Your task to perform on an android device: turn pop-ups off in chrome Image 0: 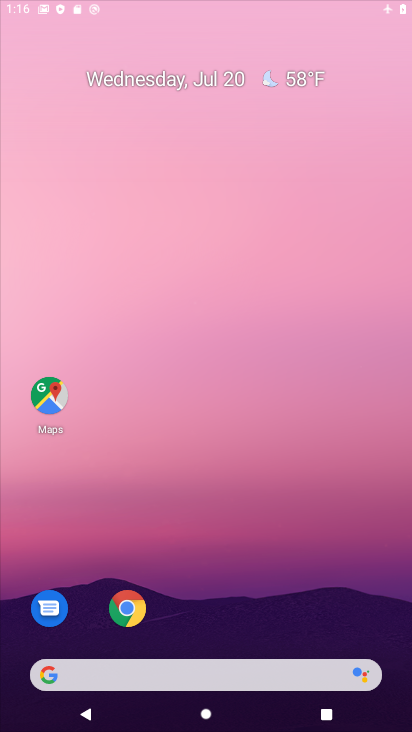
Step 0: drag from (288, 684) to (301, 190)
Your task to perform on an android device: turn pop-ups off in chrome Image 1: 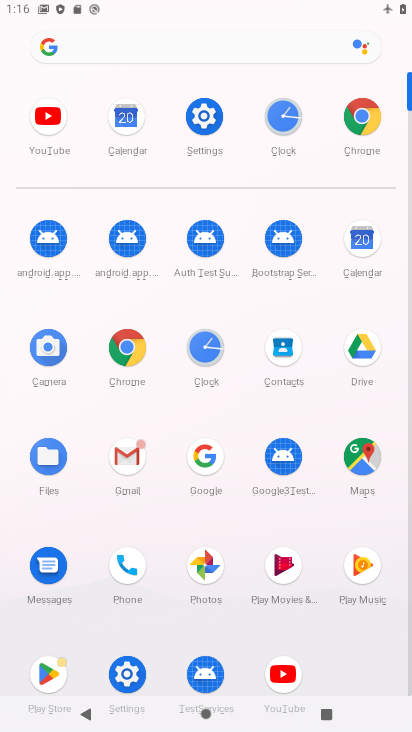
Step 1: click (131, 349)
Your task to perform on an android device: turn pop-ups off in chrome Image 2: 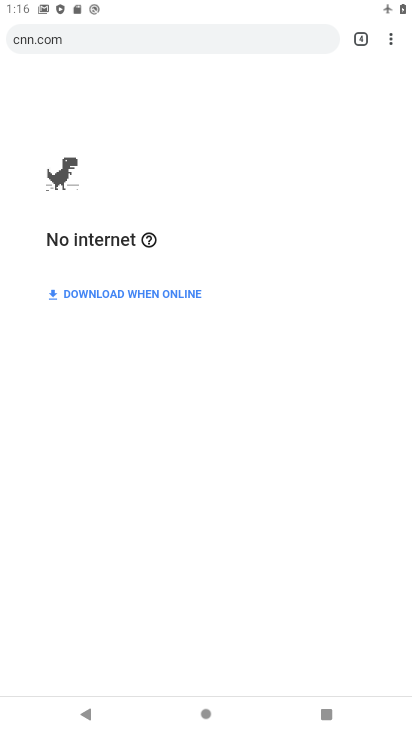
Step 2: click (391, 38)
Your task to perform on an android device: turn pop-ups off in chrome Image 3: 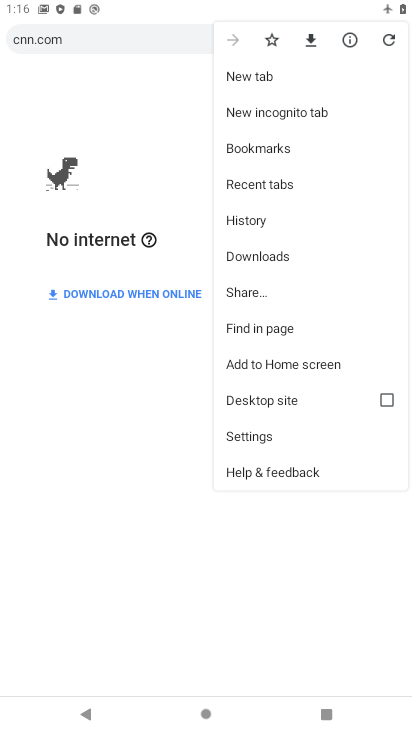
Step 3: click (253, 435)
Your task to perform on an android device: turn pop-ups off in chrome Image 4: 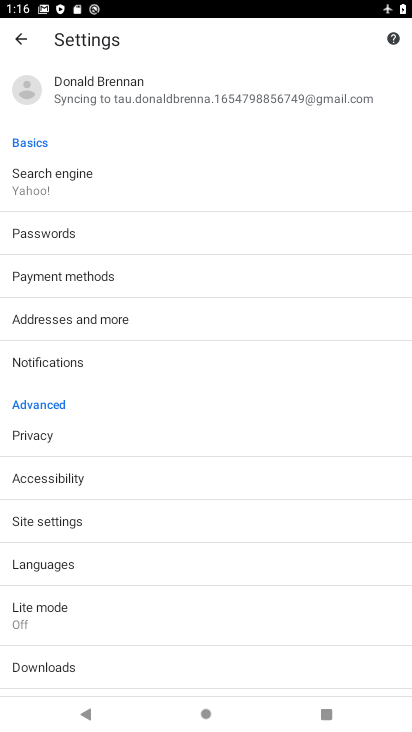
Step 4: click (66, 519)
Your task to perform on an android device: turn pop-ups off in chrome Image 5: 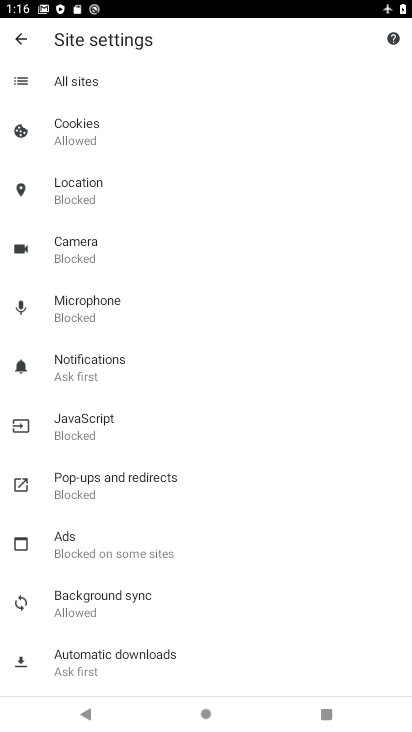
Step 5: click (87, 477)
Your task to perform on an android device: turn pop-ups off in chrome Image 6: 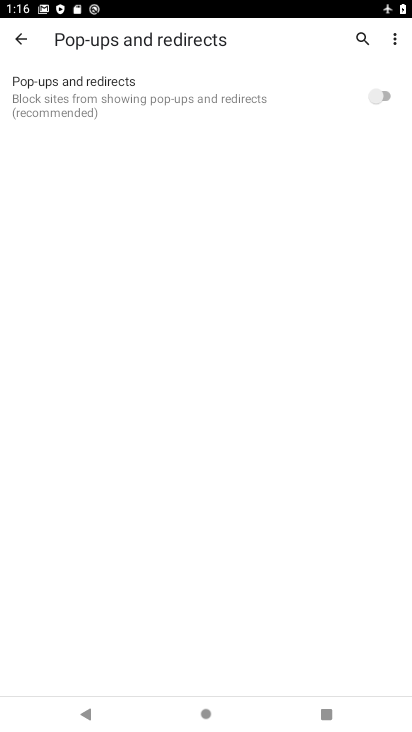
Step 6: task complete